Your task to perform on an android device: turn off picture-in-picture Image 0: 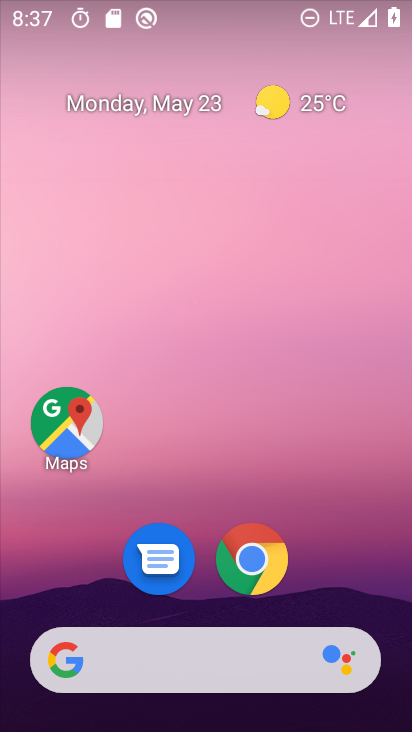
Step 0: drag from (391, 633) to (315, 0)
Your task to perform on an android device: turn off picture-in-picture Image 1: 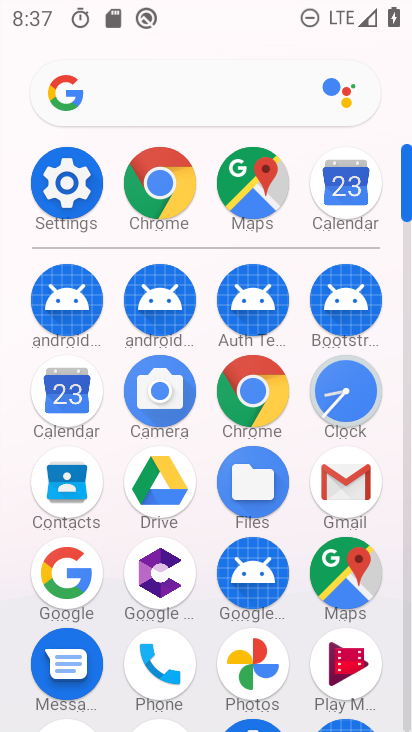
Step 1: click (259, 380)
Your task to perform on an android device: turn off picture-in-picture Image 2: 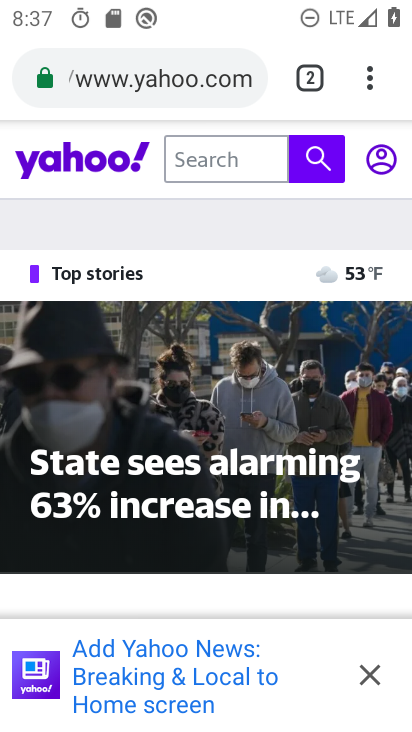
Step 2: task complete